Your task to perform on an android device: find which apps use the phone's location Image 0: 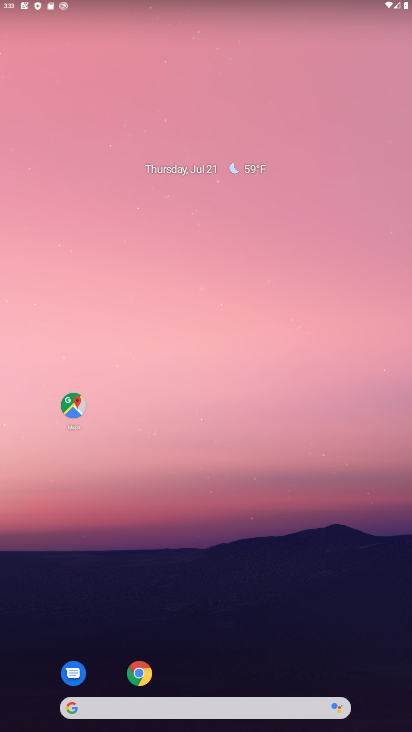
Step 0: drag from (376, 679) to (299, 89)
Your task to perform on an android device: find which apps use the phone's location Image 1: 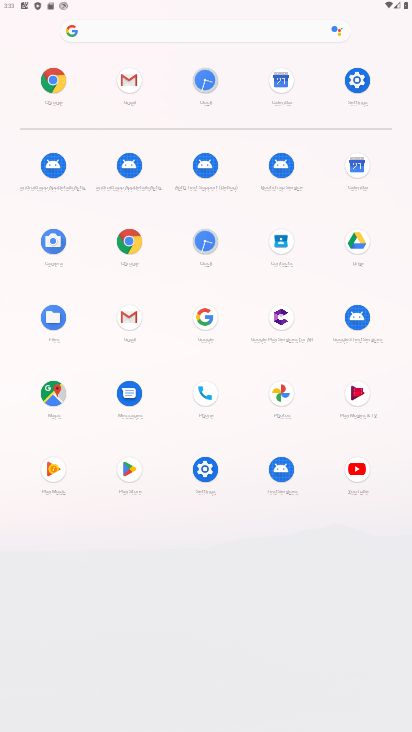
Step 1: click (204, 467)
Your task to perform on an android device: find which apps use the phone's location Image 2: 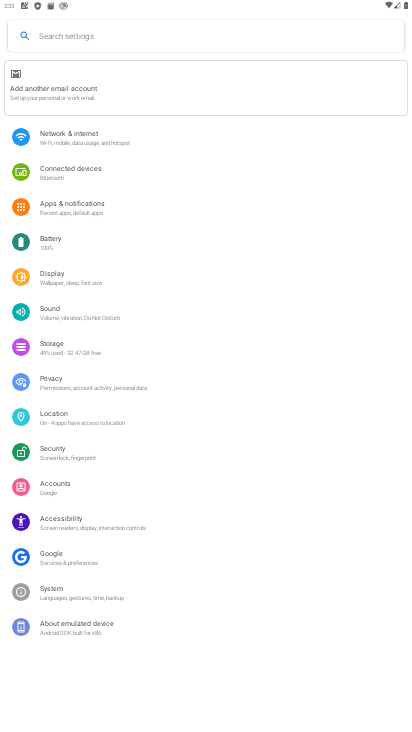
Step 2: click (49, 413)
Your task to perform on an android device: find which apps use the phone's location Image 3: 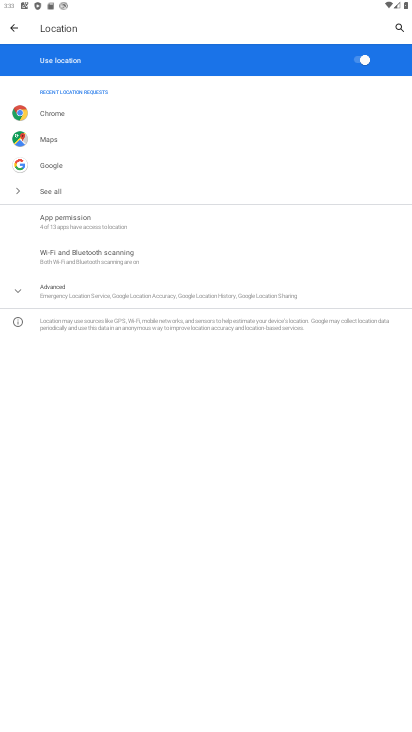
Step 3: click (50, 217)
Your task to perform on an android device: find which apps use the phone's location Image 4: 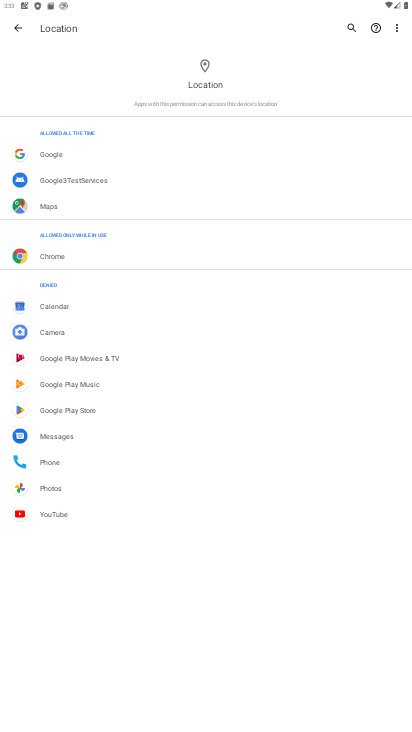
Step 4: click (43, 488)
Your task to perform on an android device: find which apps use the phone's location Image 5: 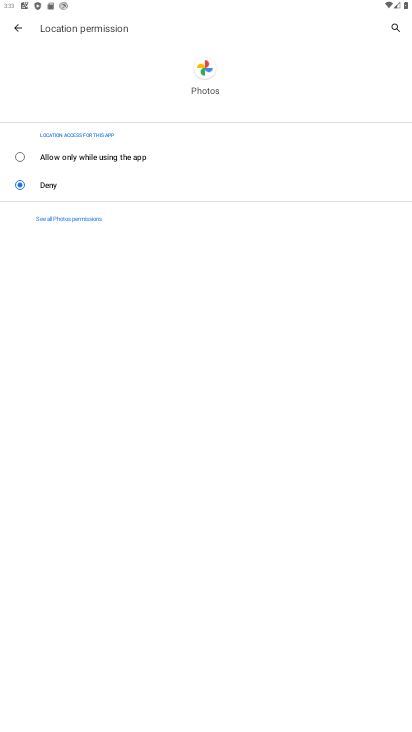
Step 5: task complete